Your task to perform on an android device: turn off picture-in-picture Image 0: 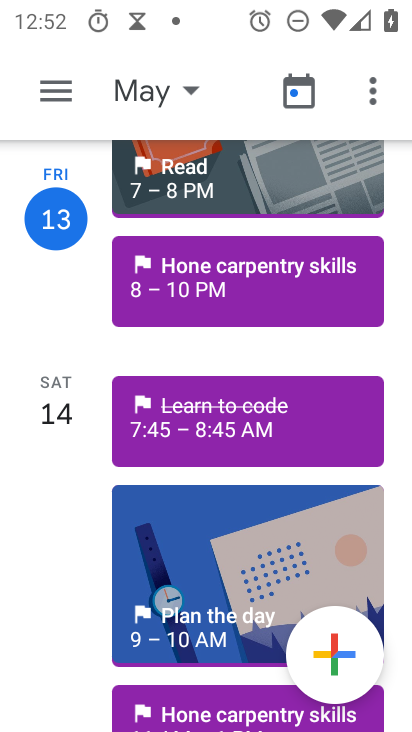
Step 0: press home button
Your task to perform on an android device: turn off picture-in-picture Image 1: 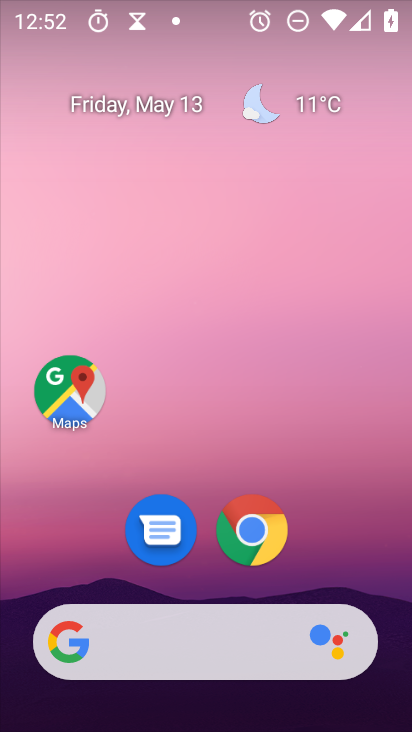
Step 1: drag from (254, 514) to (269, 482)
Your task to perform on an android device: turn off picture-in-picture Image 2: 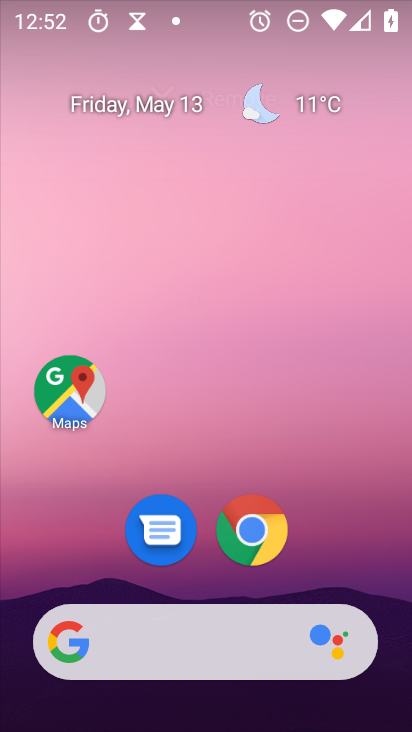
Step 2: click (278, 250)
Your task to perform on an android device: turn off picture-in-picture Image 3: 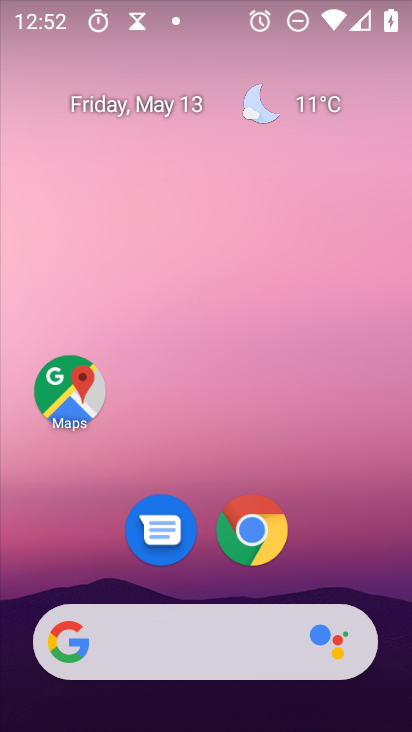
Step 3: drag from (262, 510) to (278, 440)
Your task to perform on an android device: turn off picture-in-picture Image 4: 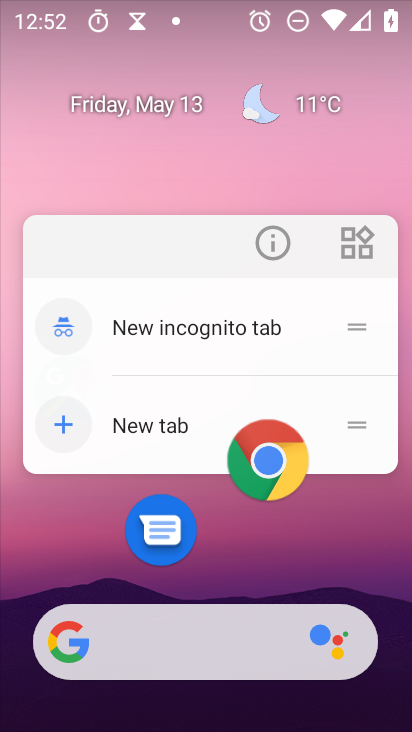
Step 4: click (280, 252)
Your task to perform on an android device: turn off picture-in-picture Image 5: 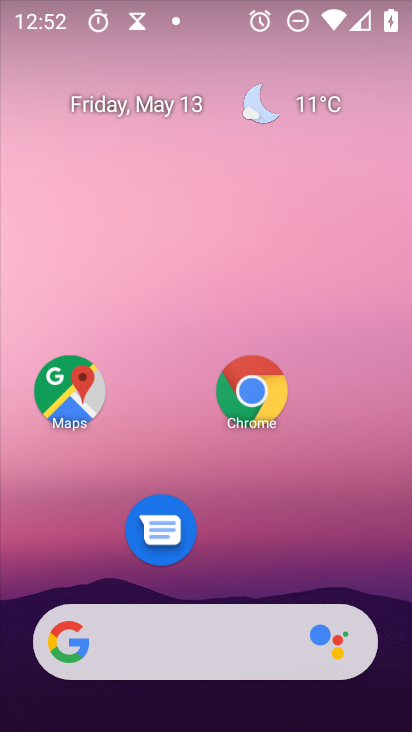
Step 5: click (266, 377)
Your task to perform on an android device: turn off picture-in-picture Image 6: 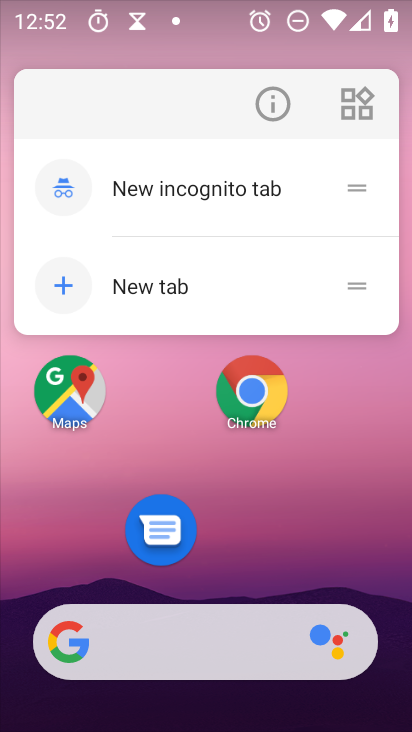
Step 6: click (276, 100)
Your task to perform on an android device: turn off picture-in-picture Image 7: 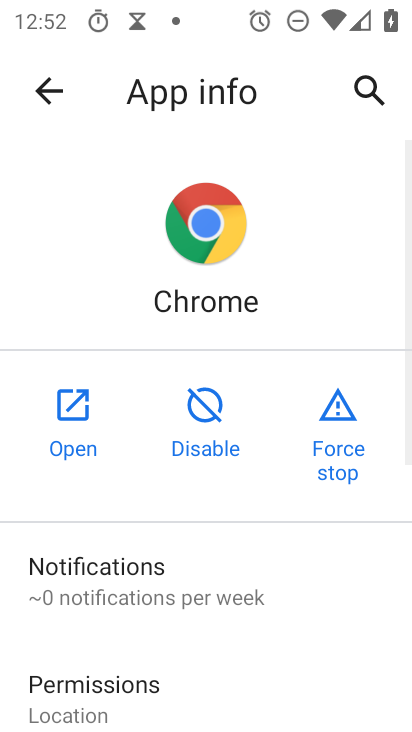
Step 7: drag from (172, 661) to (349, 144)
Your task to perform on an android device: turn off picture-in-picture Image 8: 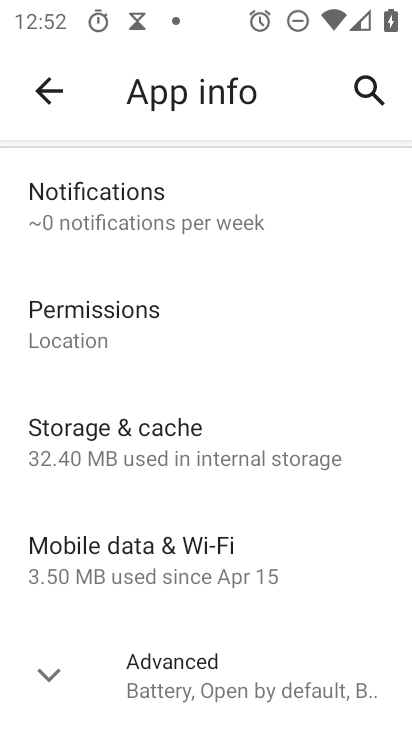
Step 8: click (142, 683)
Your task to perform on an android device: turn off picture-in-picture Image 9: 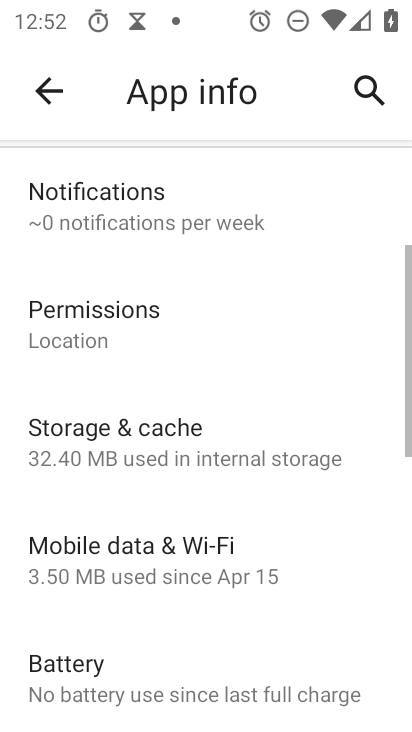
Step 9: drag from (207, 652) to (327, 107)
Your task to perform on an android device: turn off picture-in-picture Image 10: 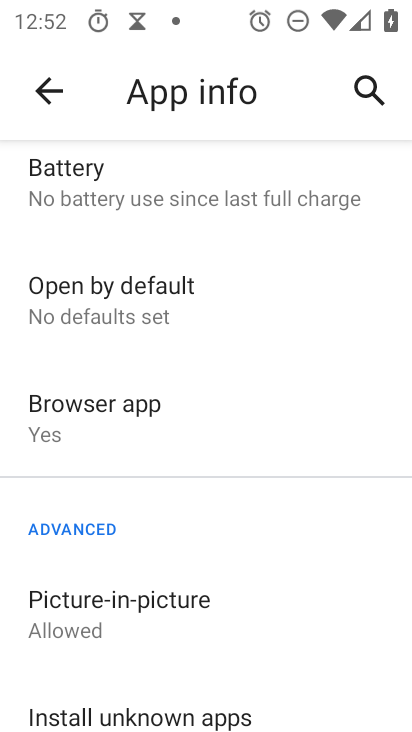
Step 10: click (138, 596)
Your task to perform on an android device: turn off picture-in-picture Image 11: 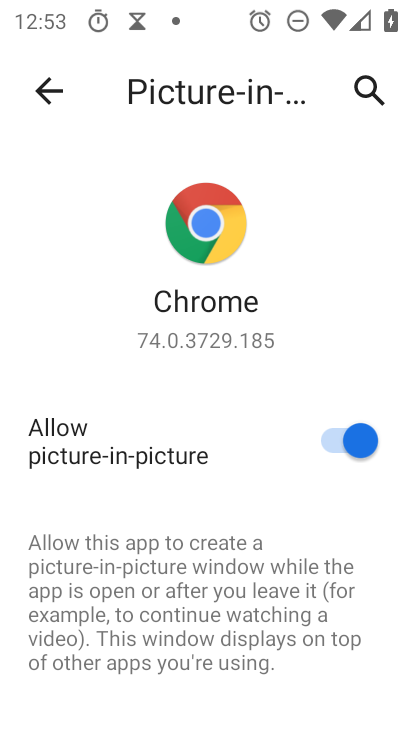
Step 11: click (334, 438)
Your task to perform on an android device: turn off picture-in-picture Image 12: 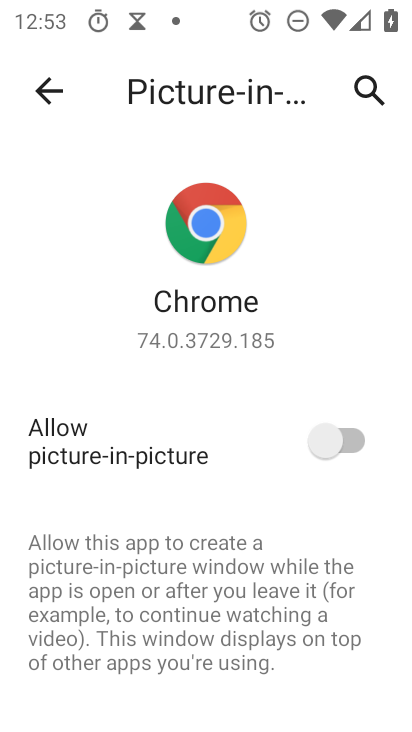
Step 12: task complete